Your task to perform on an android device: Go to display settings Image 0: 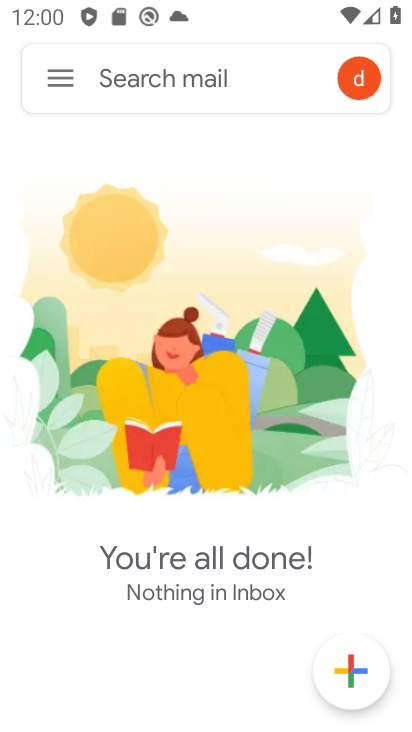
Step 0: press home button
Your task to perform on an android device: Go to display settings Image 1: 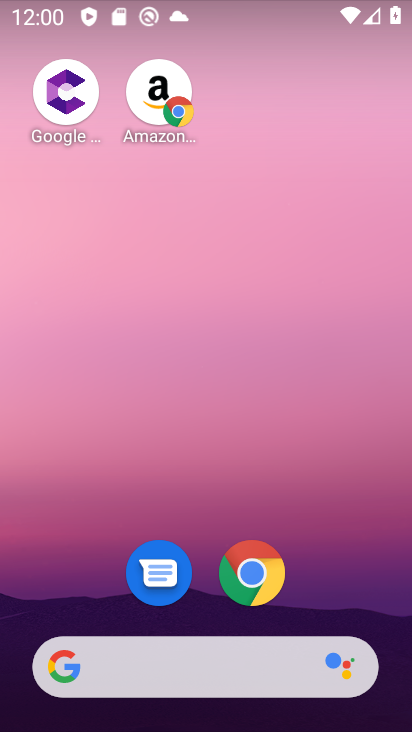
Step 1: drag from (376, 600) to (350, 170)
Your task to perform on an android device: Go to display settings Image 2: 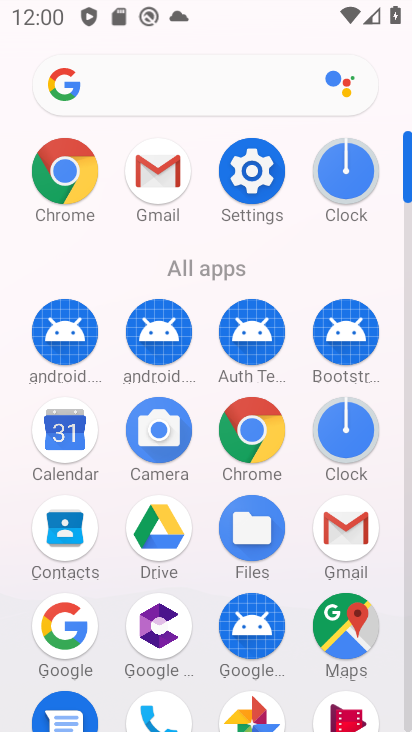
Step 2: click (260, 176)
Your task to perform on an android device: Go to display settings Image 3: 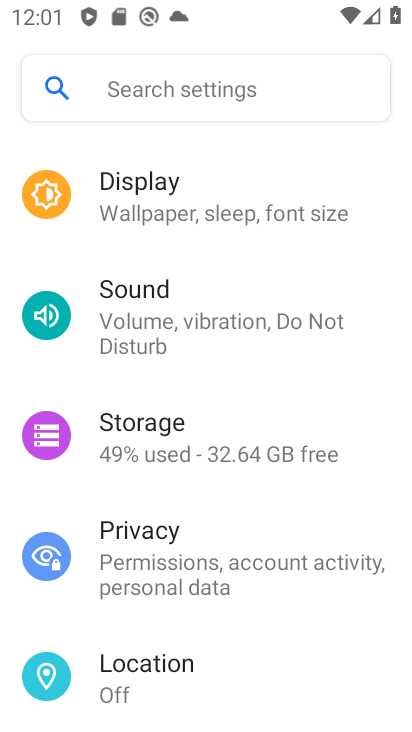
Step 3: drag from (253, 655) to (238, 373)
Your task to perform on an android device: Go to display settings Image 4: 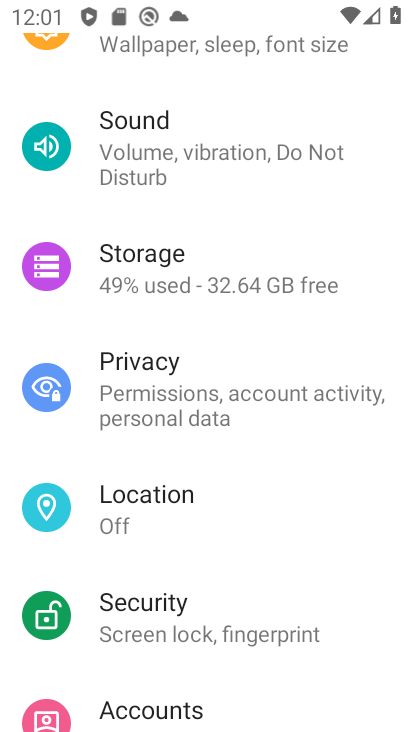
Step 4: drag from (243, 305) to (233, 651)
Your task to perform on an android device: Go to display settings Image 5: 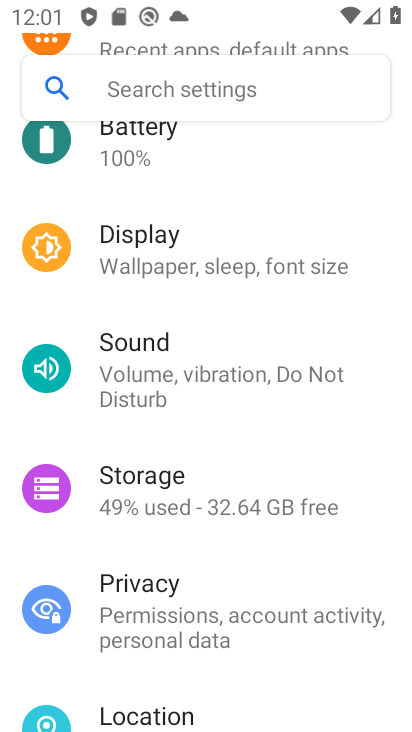
Step 5: drag from (218, 177) to (227, 576)
Your task to perform on an android device: Go to display settings Image 6: 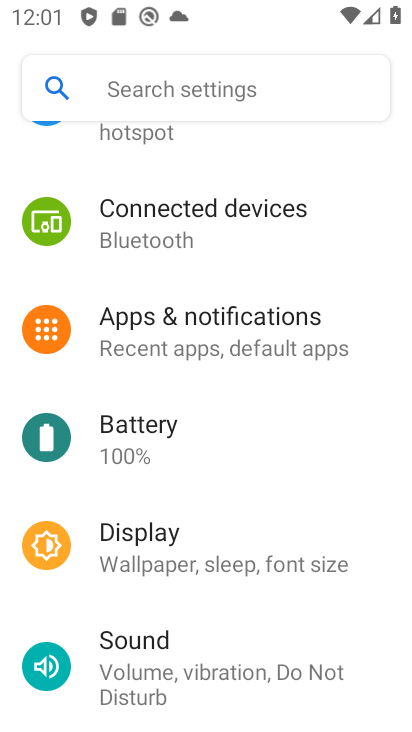
Step 6: click (174, 522)
Your task to perform on an android device: Go to display settings Image 7: 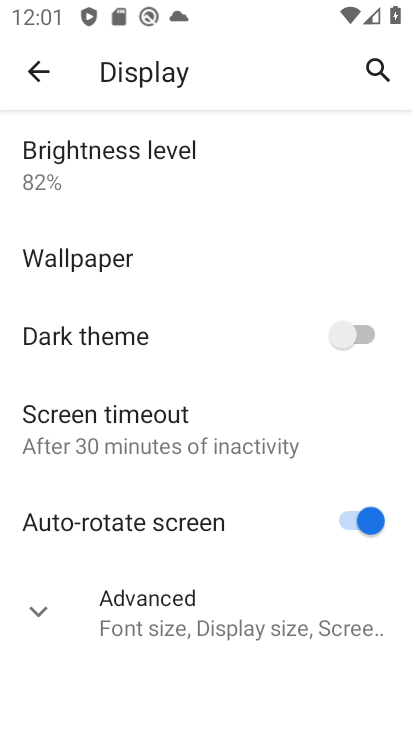
Step 7: task complete